Your task to perform on an android device: Show me popular games on the Play Store Image 0: 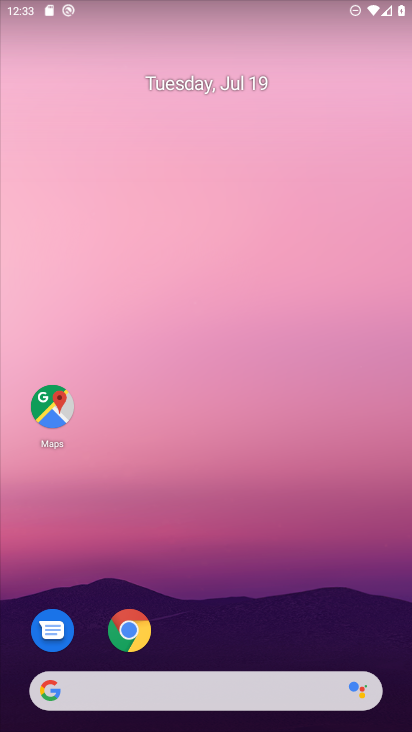
Step 0: press home button
Your task to perform on an android device: Show me popular games on the Play Store Image 1: 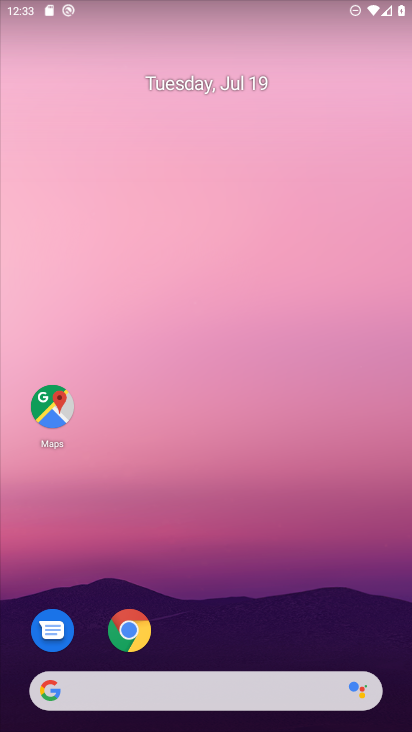
Step 1: drag from (118, 692) to (262, 13)
Your task to perform on an android device: Show me popular games on the Play Store Image 2: 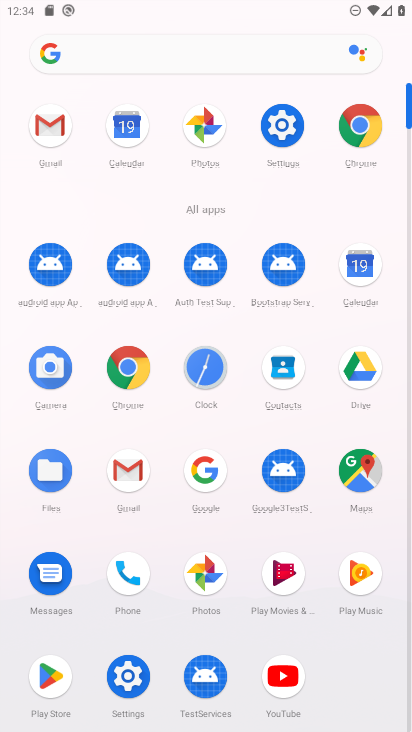
Step 2: click (50, 673)
Your task to perform on an android device: Show me popular games on the Play Store Image 3: 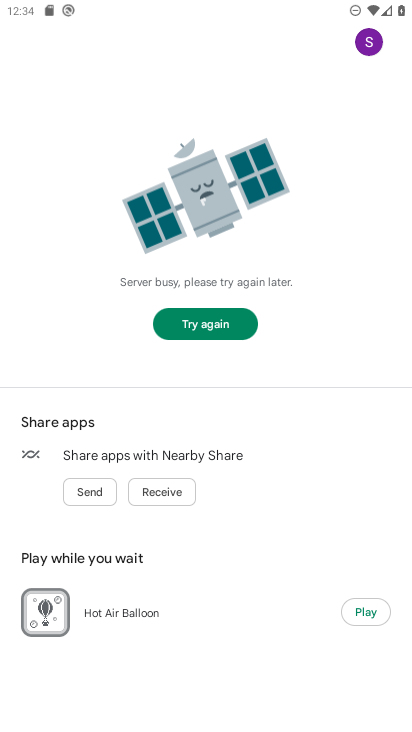
Step 3: click (210, 323)
Your task to perform on an android device: Show me popular games on the Play Store Image 4: 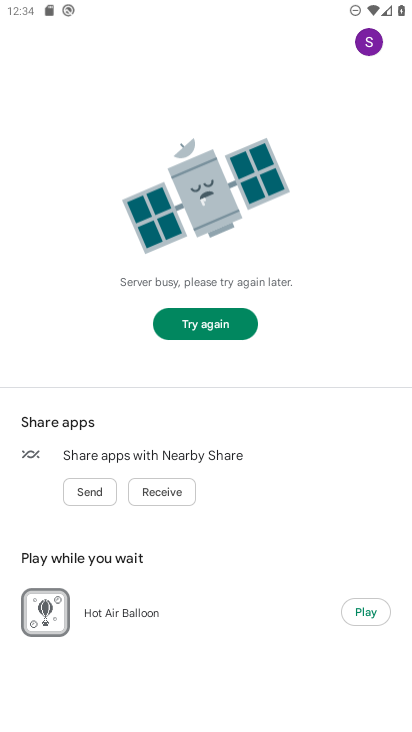
Step 4: click (211, 326)
Your task to perform on an android device: Show me popular games on the Play Store Image 5: 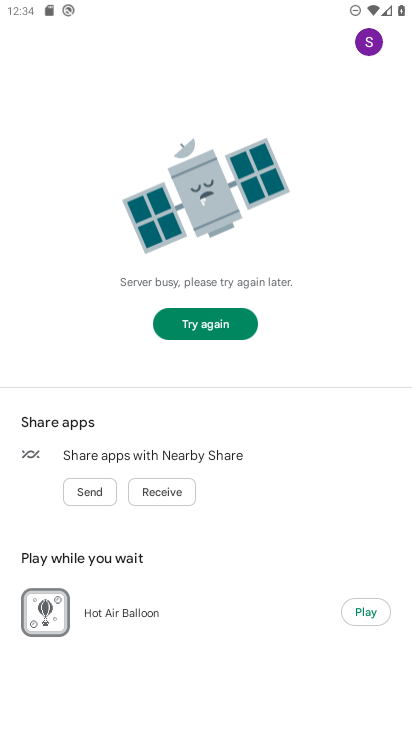
Step 5: click (208, 324)
Your task to perform on an android device: Show me popular games on the Play Store Image 6: 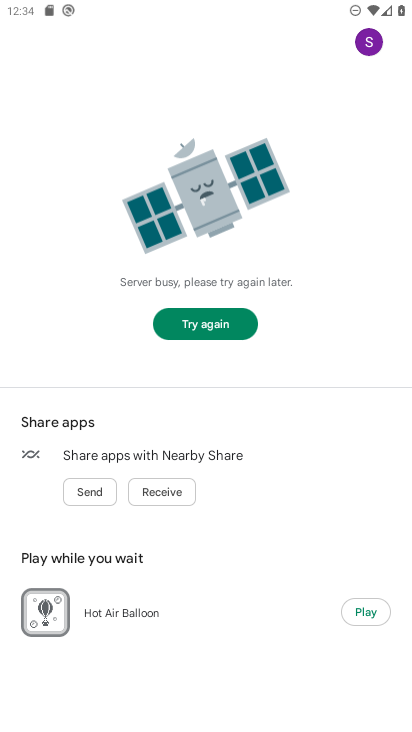
Step 6: task complete